Your task to perform on an android device: change the clock display to digital Image 0: 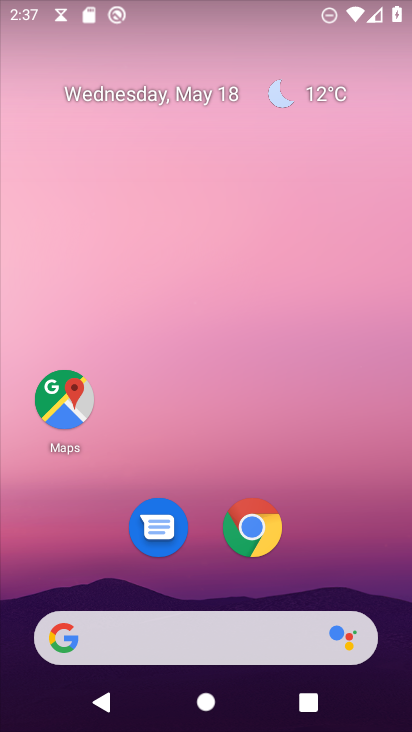
Step 0: drag from (322, 571) to (232, 60)
Your task to perform on an android device: change the clock display to digital Image 1: 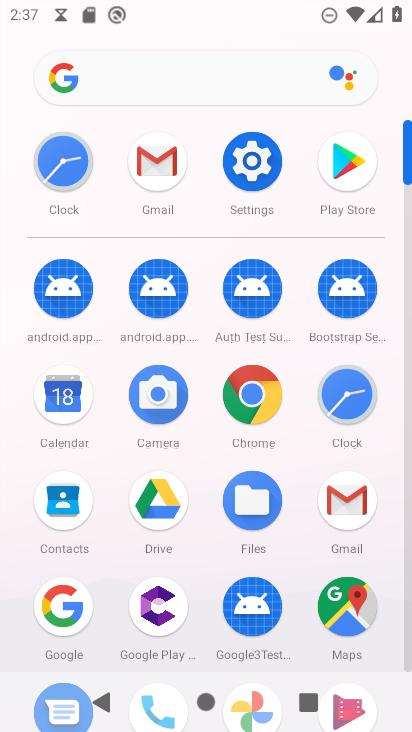
Step 1: click (64, 163)
Your task to perform on an android device: change the clock display to digital Image 2: 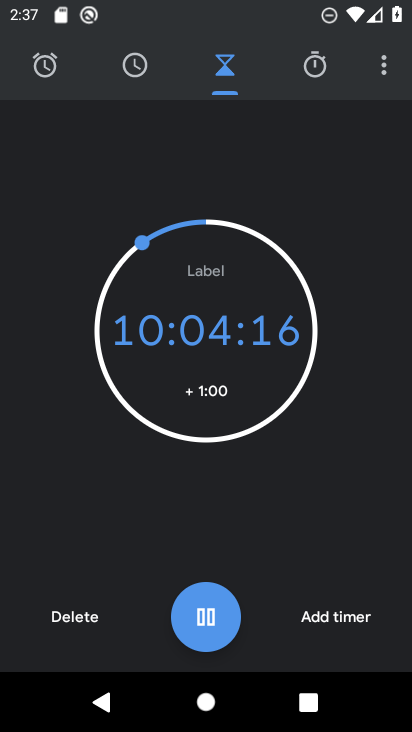
Step 2: click (382, 66)
Your task to perform on an android device: change the clock display to digital Image 3: 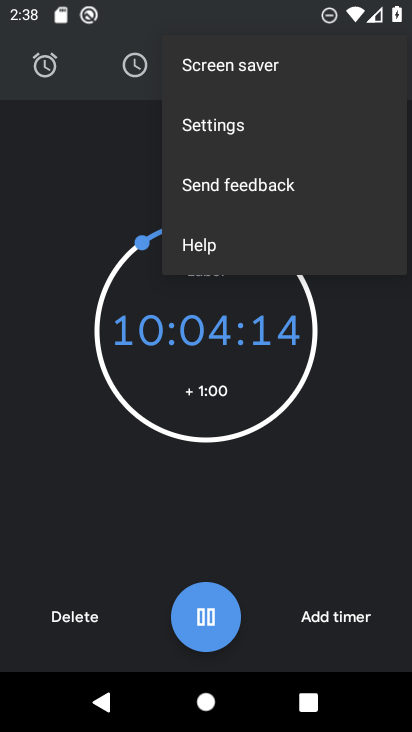
Step 3: click (235, 133)
Your task to perform on an android device: change the clock display to digital Image 4: 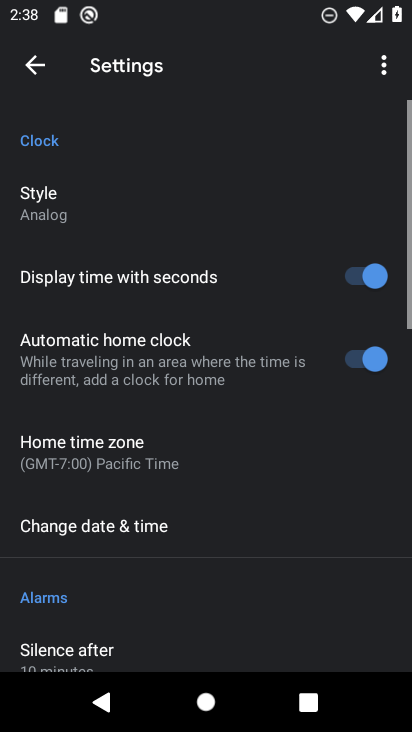
Step 4: click (105, 197)
Your task to perform on an android device: change the clock display to digital Image 5: 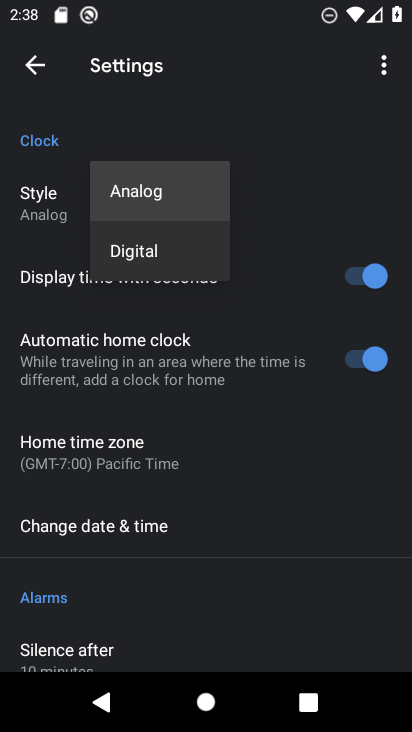
Step 5: click (164, 245)
Your task to perform on an android device: change the clock display to digital Image 6: 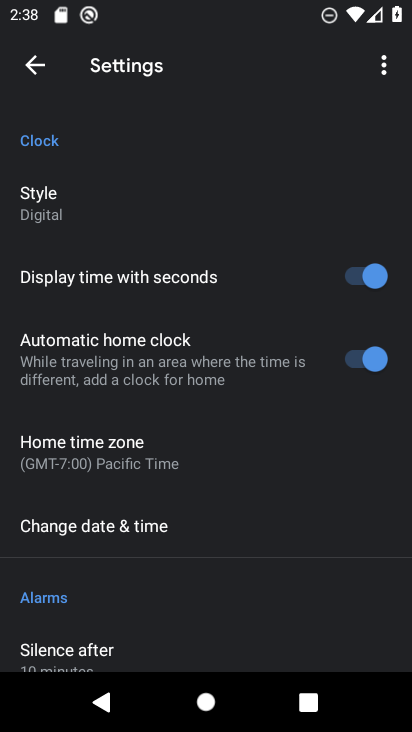
Step 6: task complete